Your task to perform on an android device: stop showing notifications on the lock screen Image 0: 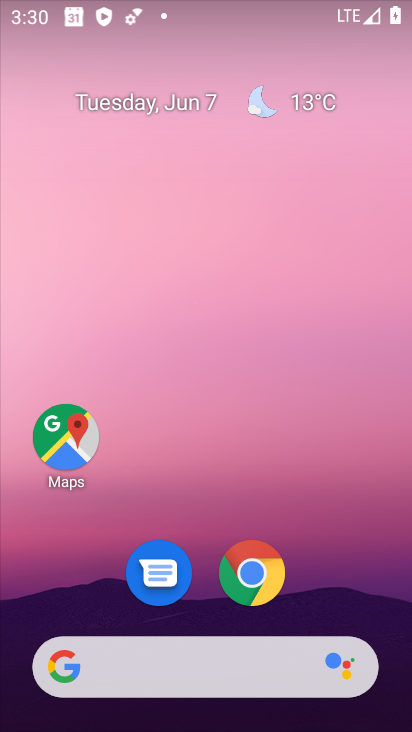
Step 0: drag from (377, 617) to (294, 90)
Your task to perform on an android device: stop showing notifications on the lock screen Image 1: 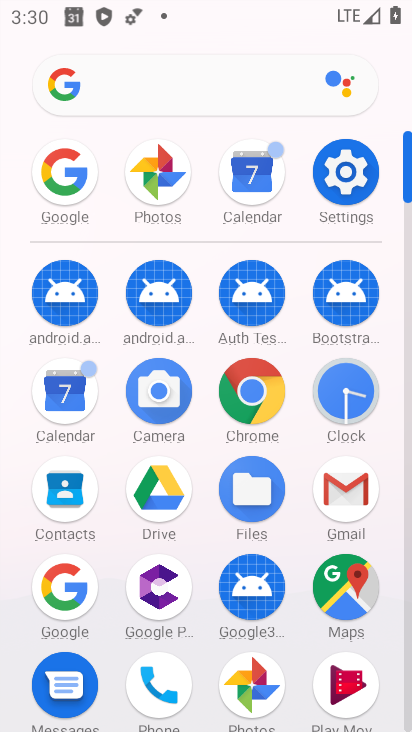
Step 1: click (340, 158)
Your task to perform on an android device: stop showing notifications on the lock screen Image 2: 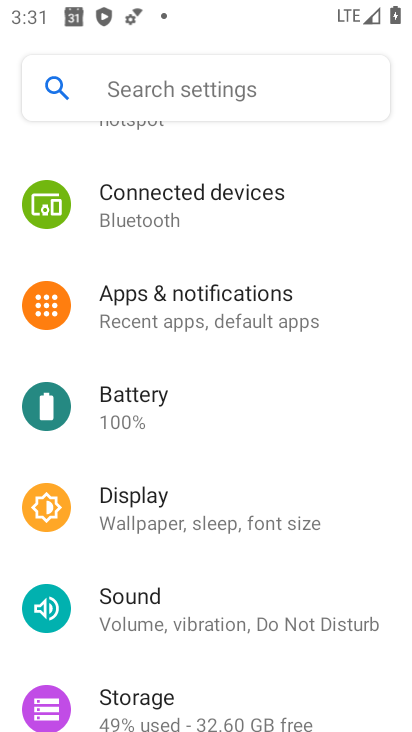
Step 2: click (262, 303)
Your task to perform on an android device: stop showing notifications on the lock screen Image 3: 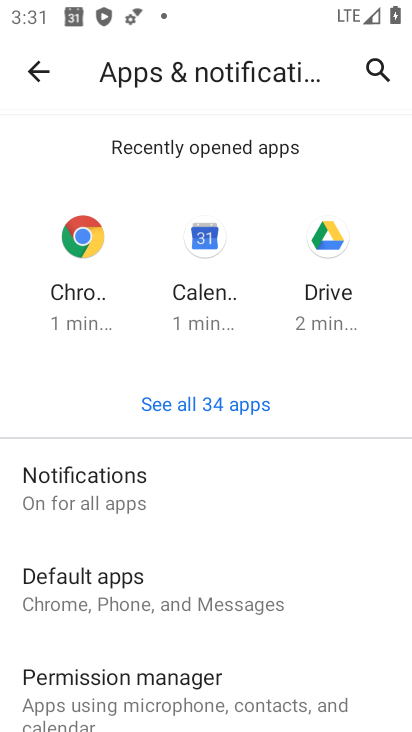
Step 3: click (244, 493)
Your task to perform on an android device: stop showing notifications on the lock screen Image 4: 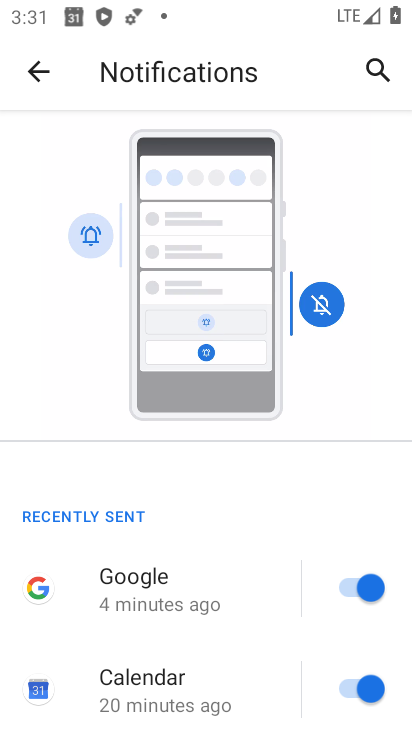
Step 4: drag from (260, 566) to (178, 2)
Your task to perform on an android device: stop showing notifications on the lock screen Image 5: 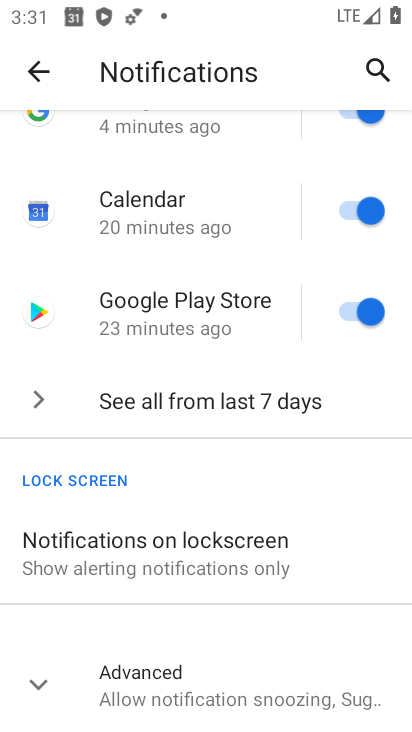
Step 5: click (270, 567)
Your task to perform on an android device: stop showing notifications on the lock screen Image 6: 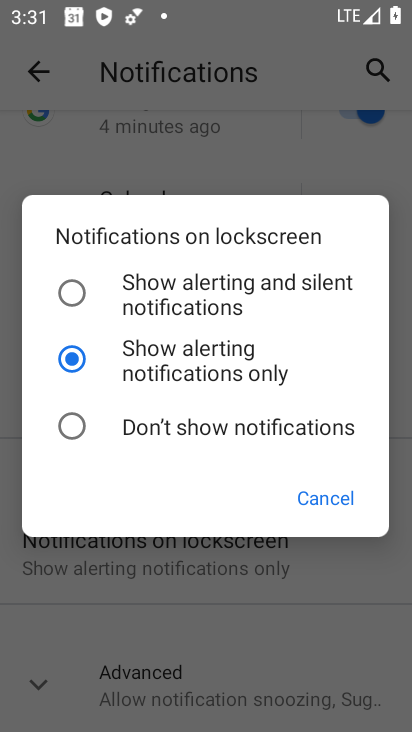
Step 6: click (223, 436)
Your task to perform on an android device: stop showing notifications on the lock screen Image 7: 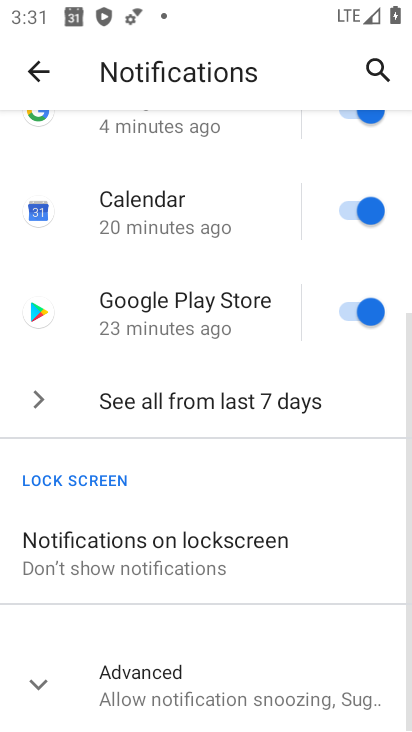
Step 7: task complete